Your task to perform on an android device: manage bookmarks in the chrome app Image 0: 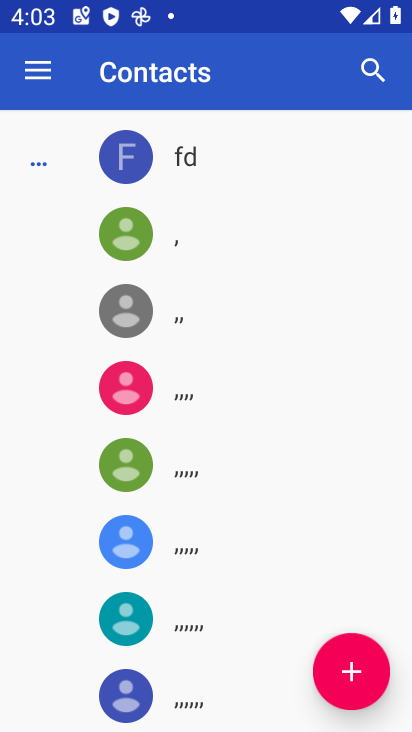
Step 0: press home button
Your task to perform on an android device: manage bookmarks in the chrome app Image 1: 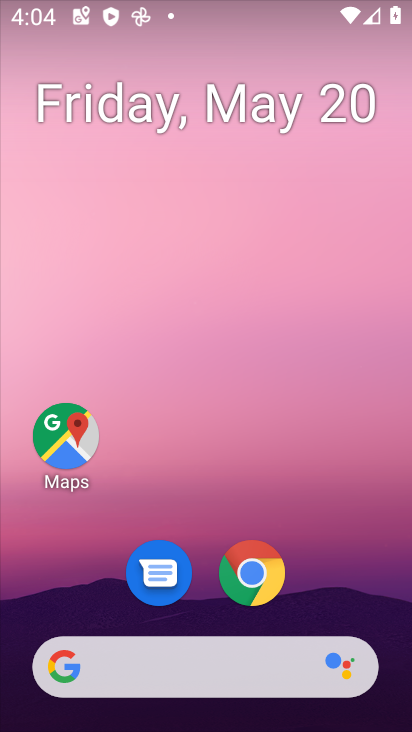
Step 1: click (255, 577)
Your task to perform on an android device: manage bookmarks in the chrome app Image 2: 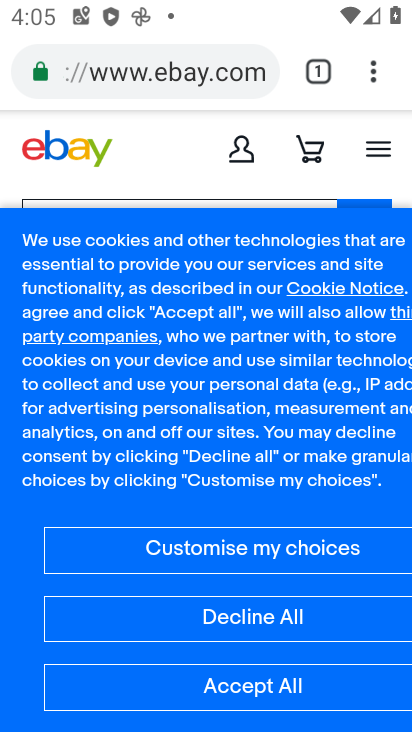
Step 2: click (377, 76)
Your task to perform on an android device: manage bookmarks in the chrome app Image 3: 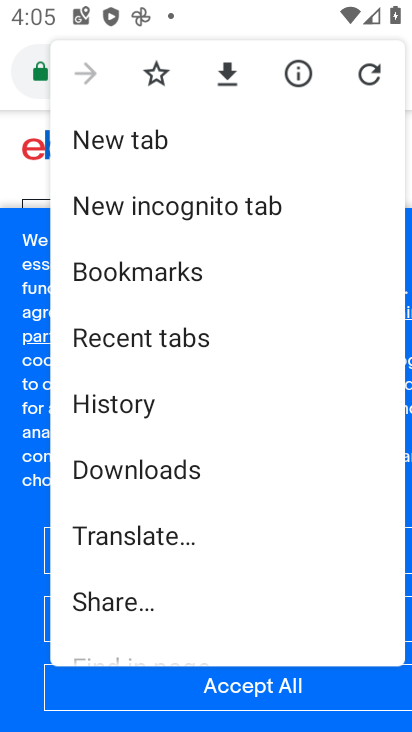
Step 3: click (145, 276)
Your task to perform on an android device: manage bookmarks in the chrome app Image 4: 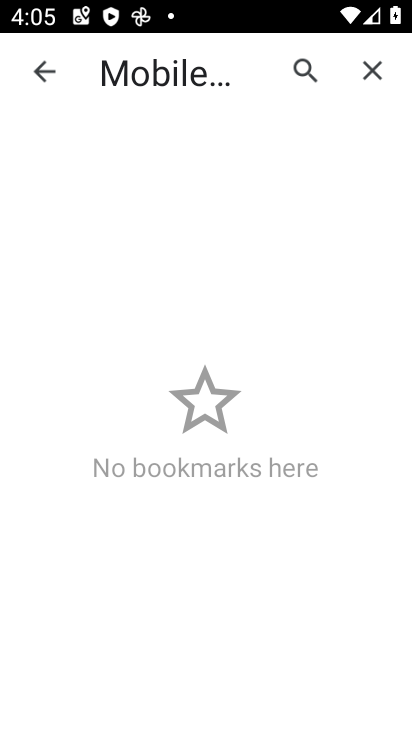
Step 4: task complete